Your task to perform on an android device: Go to Maps Image 0: 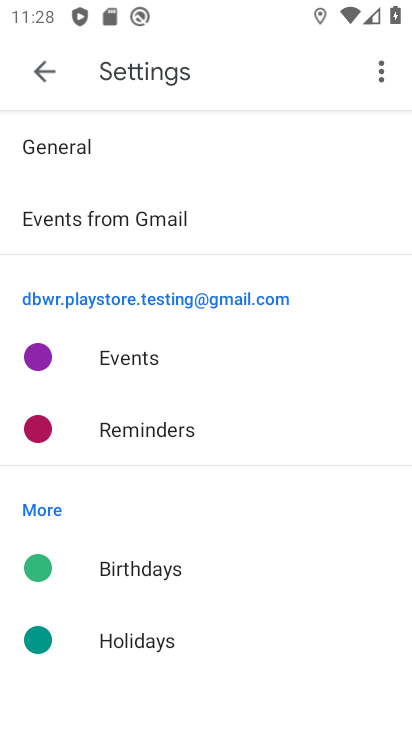
Step 0: press home button
Your task to perform on an android device: Go to Maps Image 1: 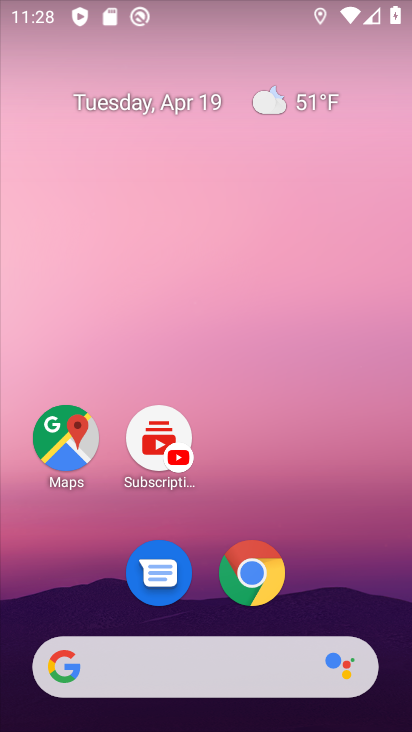
Step 1: click (65, 437)
Your task to perform on an android device: Go to Maps Image 2: 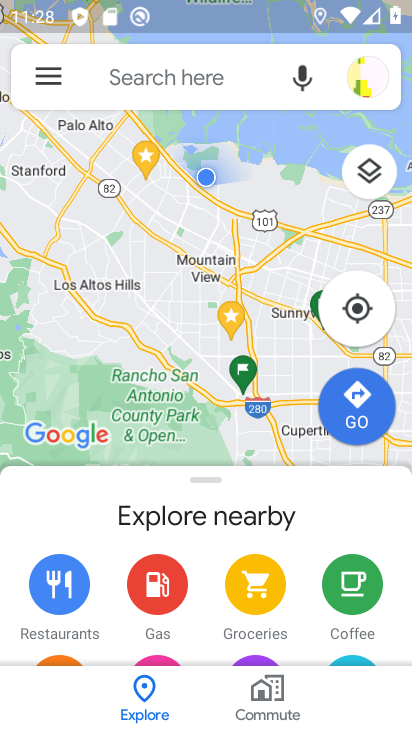
Step 2: task complete